Your task to perform on an android device: toggle sleep mode Image 0: 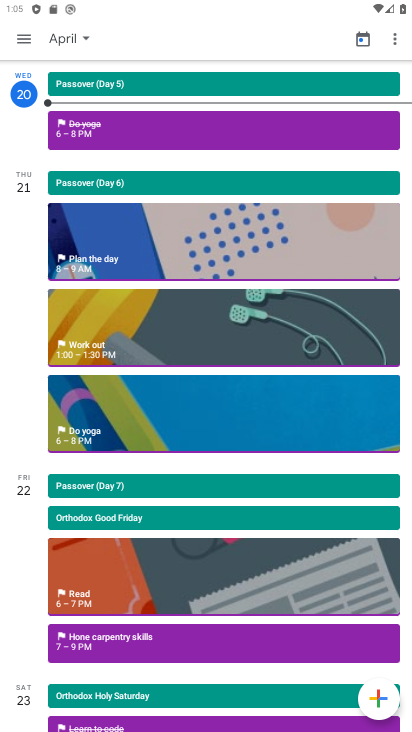
Step 0: press home button
Your task to perform on an android device: toggle sleep mode Image 1: 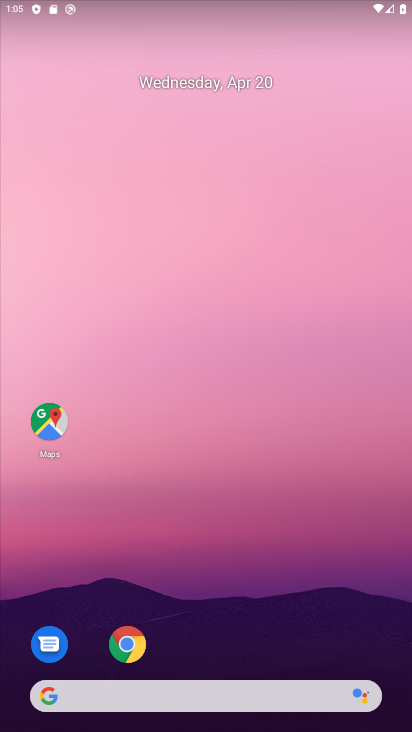
Step 1: drag from (187, 540) to (196, 62)
Your task to perform on an android device: toggle sleep mode Image 2: 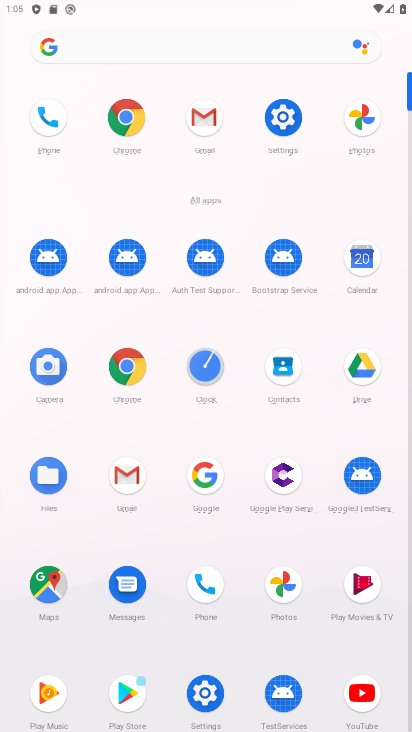
Step 2: click (283, 122)
Your task to perform on an android device: toggle sleep mode Image 3: 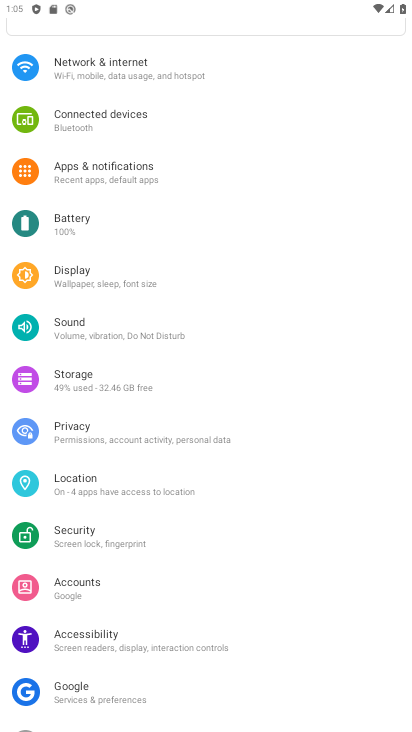
Step 3: click (132, 283)
Your task to perform on an android device: toggle sleep mode Image 4: 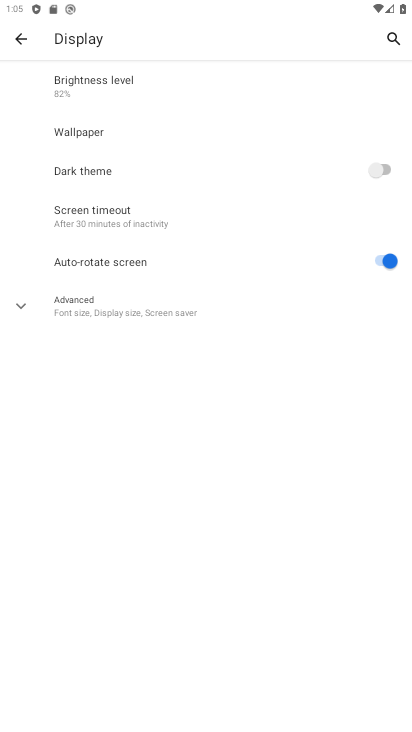
Step 4: click (114, 226)
Your task to perform on an android device: toggle sleep mode Image 5: 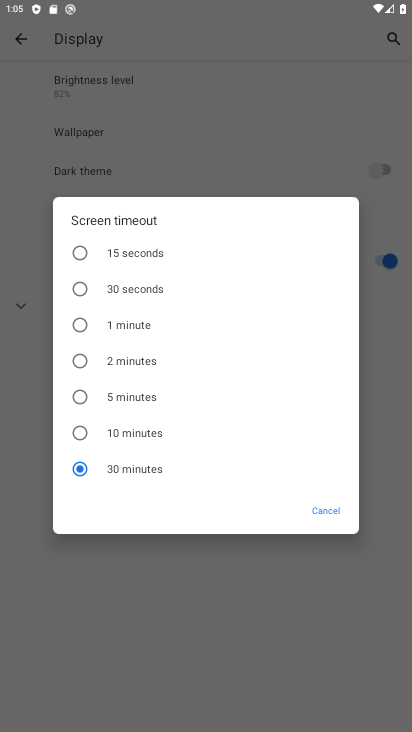
Step 5: task complete